Your task to perform on an android device: Go to CNN.com Image 0: 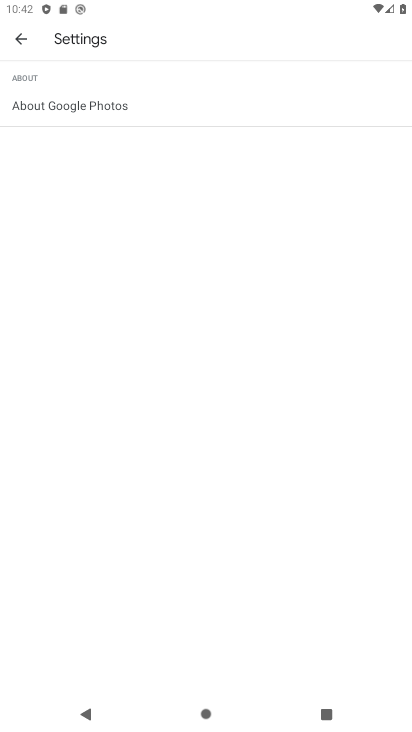
Step 0: press home button
Your task to perform on an android device: Go to CNN.com Image 1: 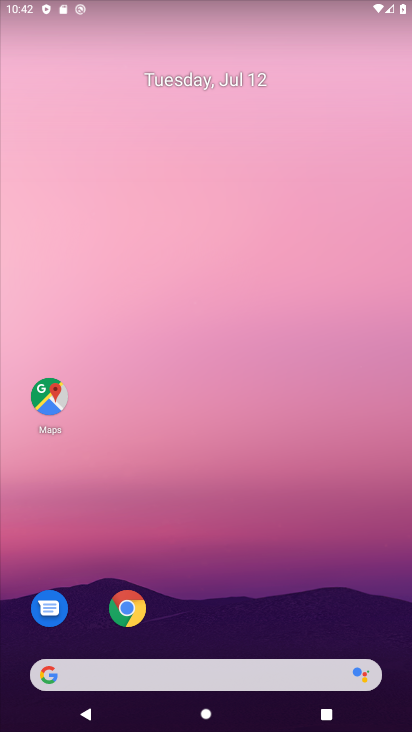
Step 1: click (139, 677)
Your task to perform on an android device: Go to CNN.com Image 2: 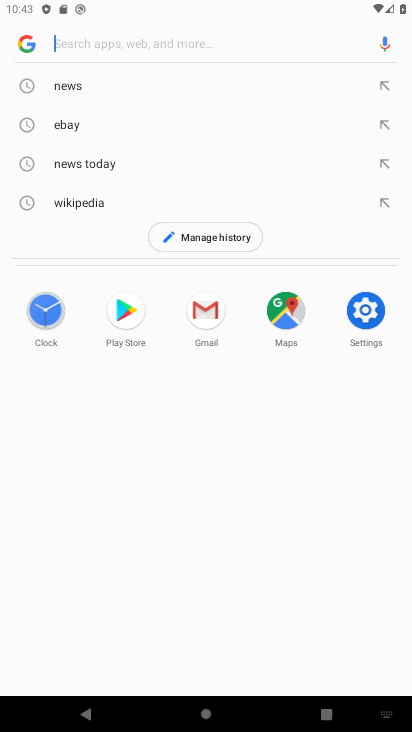
Step 2: type "cnn"
Your task to perform on an android device: Go to CNN.com Image 3: 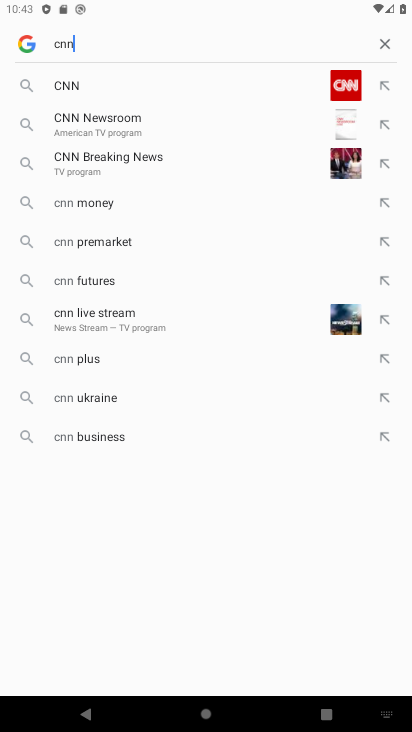
Step 3: click (99, 84)
Your task to perform on an android device: Go to CNN.com Image 4: 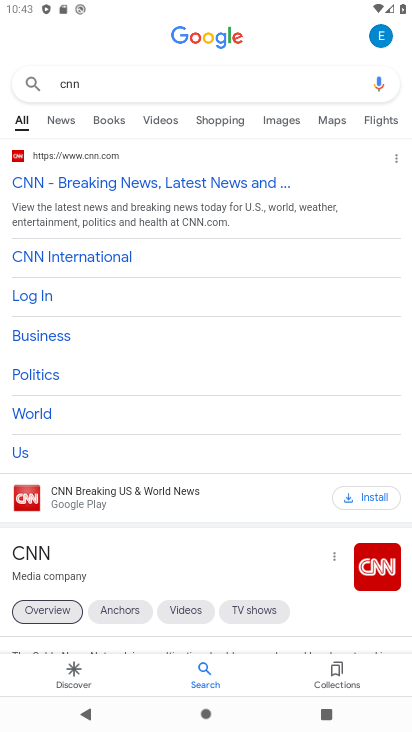
Step 4: task complete